Your task to perform on an android device: Open internet settings Image 0: 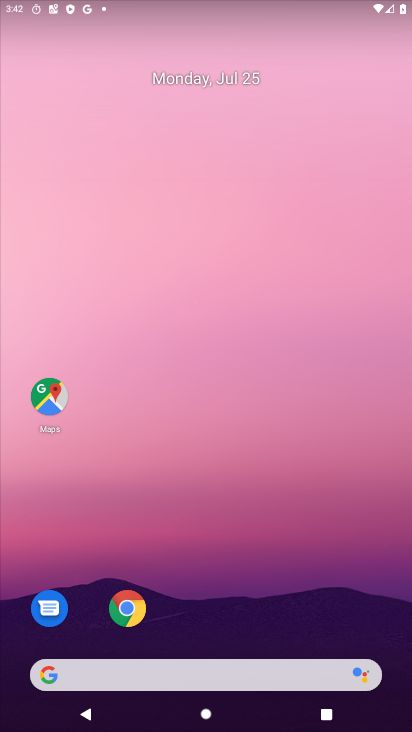
Step 0: press home button
Your task to perform on an android device: Open internet settings Image 1: 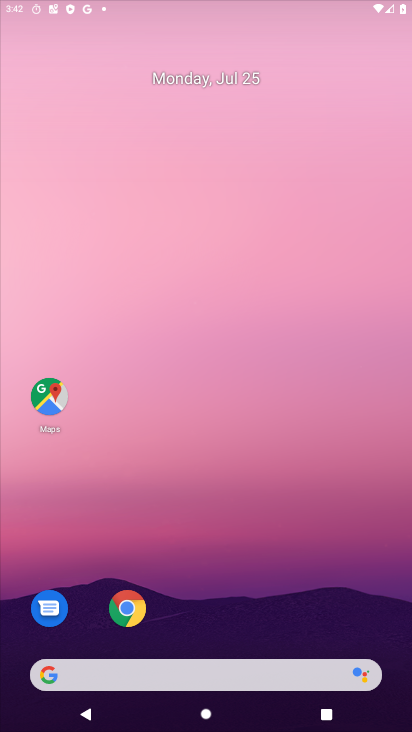
Step 1: drag from (222, 600) to (234, 8)
Your task to perform on an android device: Open internet settings Image 2: 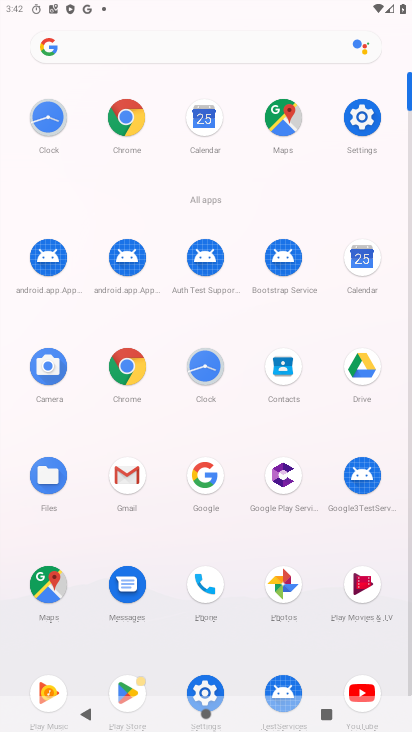
Step 2: click (360, 111)
Your task to perform on an android device: Open internet settings Image 3: 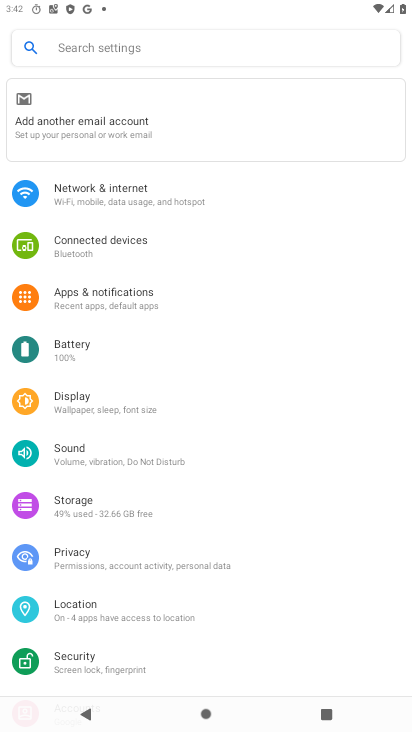
Step 3: click (111, 194)
Your task to perform on an android device: Open internet settings Image 4: 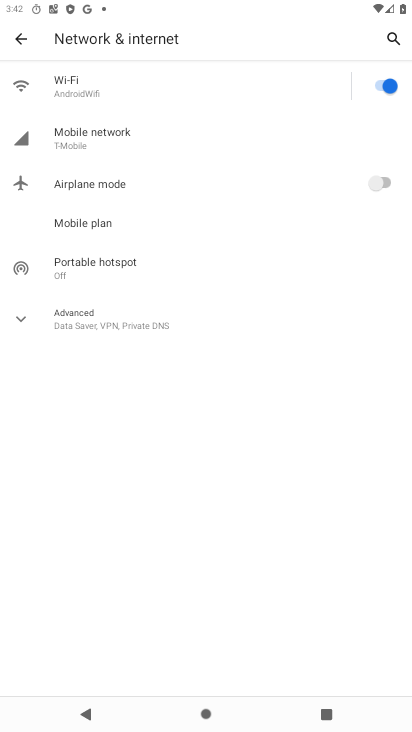
Step 4: click (28, 315)
Your task to perform on an android device: Open internet settings Image 5: 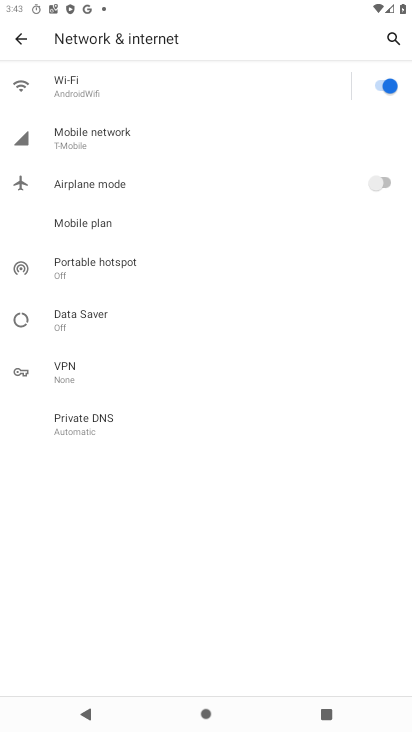
Step 5: task complete